Your task to perform on an android device: see creations saved in the google photos Image 0: 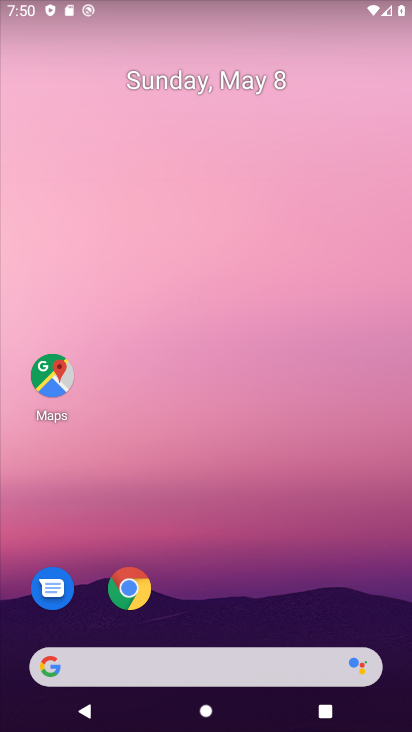
Step 0: drag from (17, 639) to (234, 162)
Your task to perform on an android device: see creations saved in the google photos Image 1: 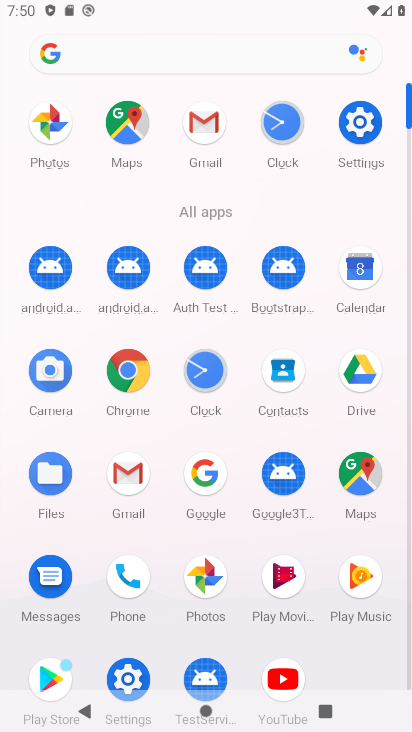
Step 1: click (191, 572)
Your task to perform on an android device: see creations saved in the google photos Image 2: 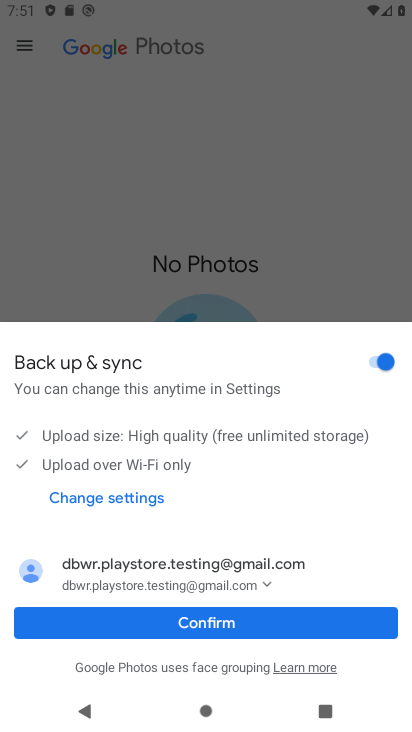
Step 2: click (187, 613)
Your task to perform on an android device: see creations saved in the google photos Image 3: 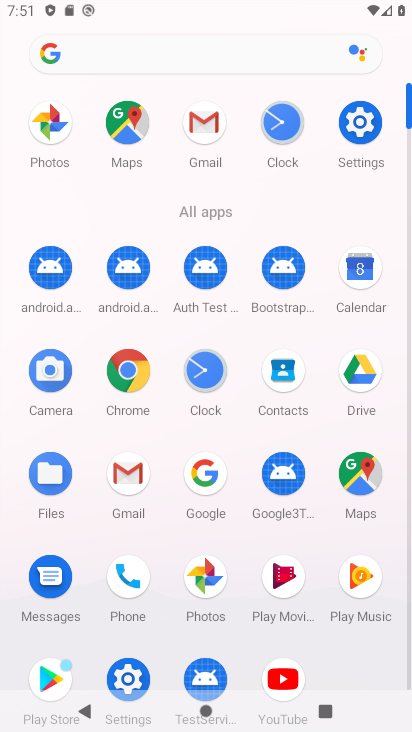
Step 3: click (210, 568)
Your task to perform on an android device: see creations saved in the google photos Image 4: 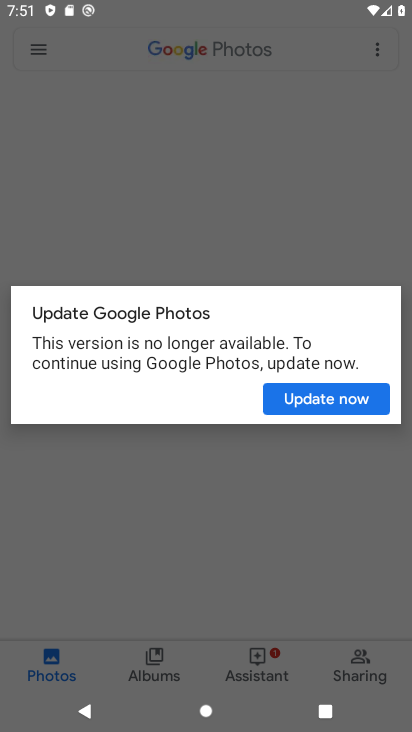
Step 4: click (325, 389)
Your task to perform on an android device: see creations saved in the google photos Image 5: 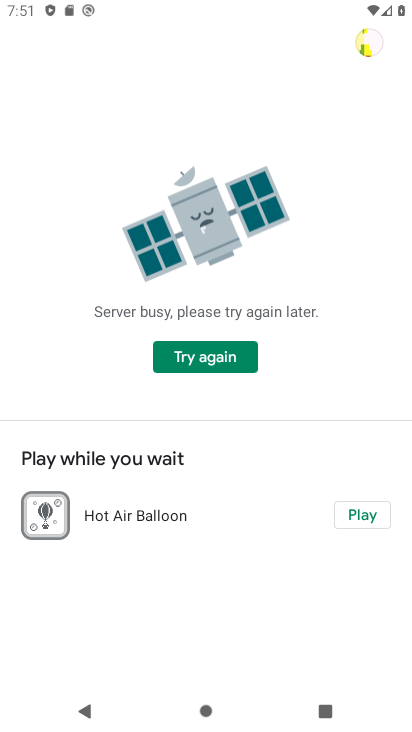
Step 5: press back button
Your task to perform on an android device: see creations saved in the google photos Image 6: 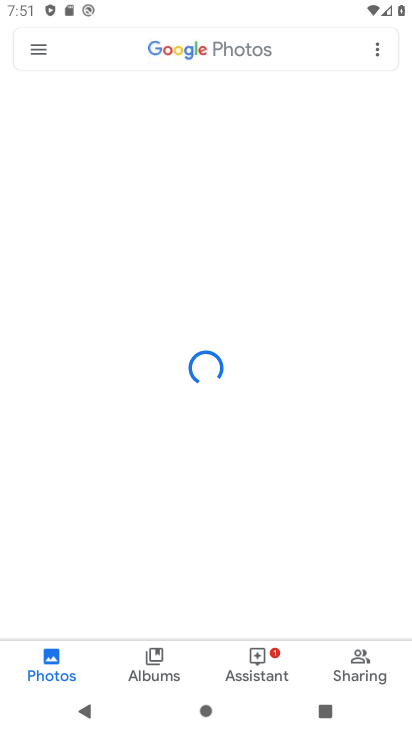
Step 6: click (95, 52)
Your task to perform on an android device: see creations saved in the google photos Image 7: 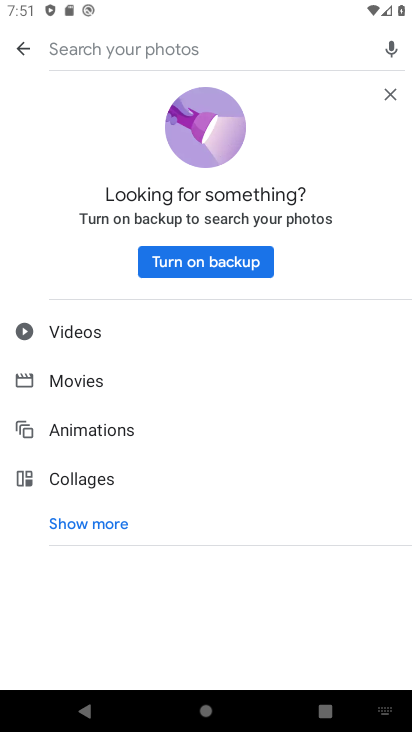
Step 7: click (87, 522)
Your task to perform on an android device: see creations saved in the google photos Image 8: 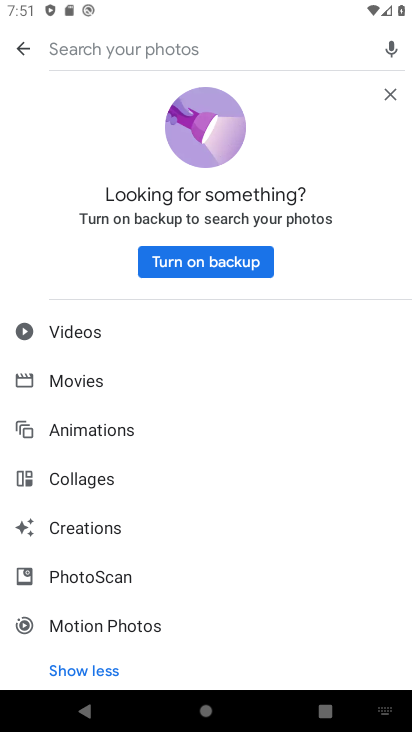
Step 8: click (92, 526)
Your task to perform on an android device: see creations saved in the google photos Image 9: 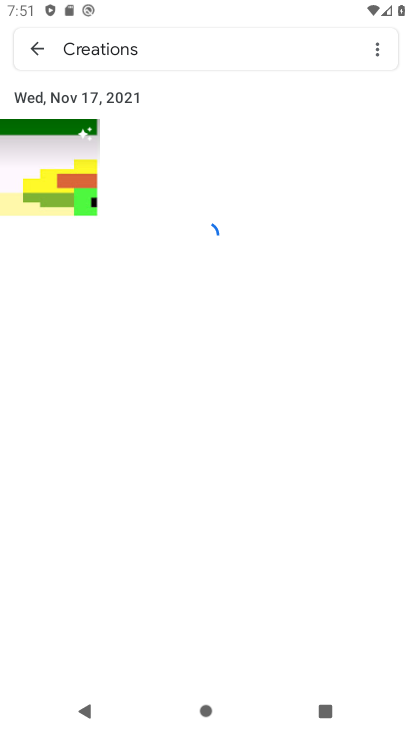
Step 9: task complete